Your task to perform on an android device: Open Chrome and go to the settings page Image 0: 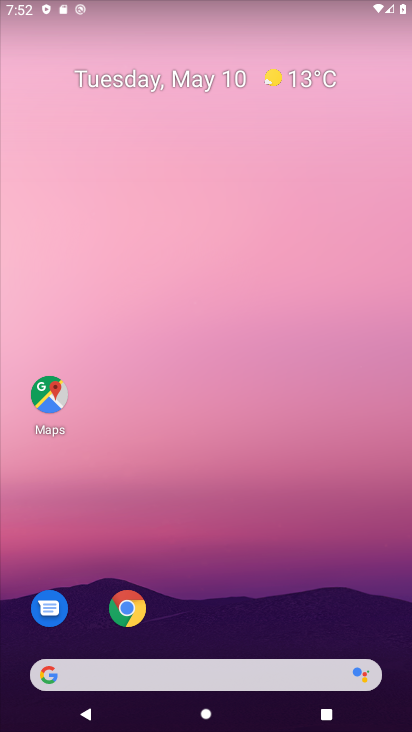
Step 0: press home button
Your task to perform on an android device: Open Chrome and go to the settings page Image 1: 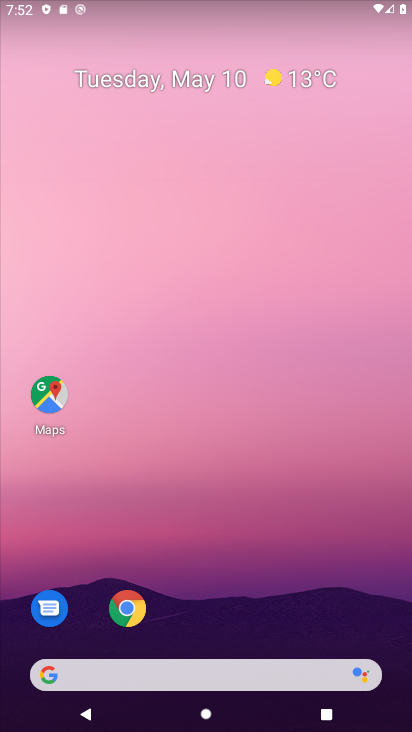
Step 1: drag from (162, 674) to (249, 345)
Your task to perform on an android device: Open Chrome and go to the settings page Image 2: 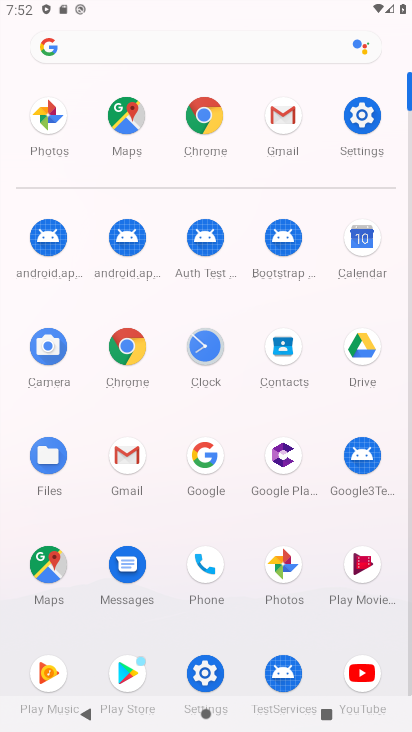
Step 2: click (208, 119)
Your task to perform on an android device: Open Chrome and go to the settings page Image 3: 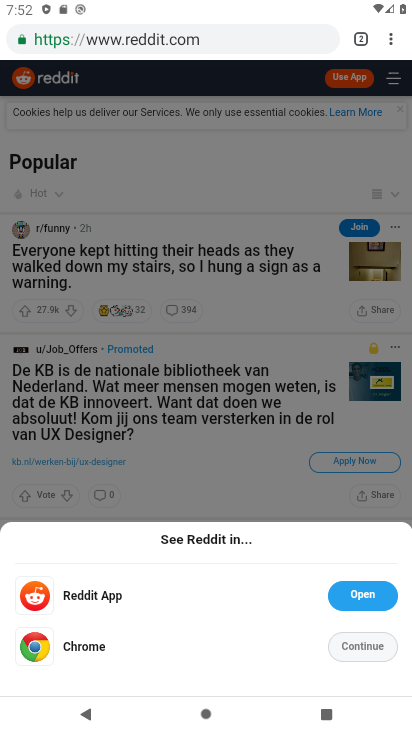
Step 3: click (393, 44)
Your task to perform on an android device: Open Chrome and go to the settings page Image 4: 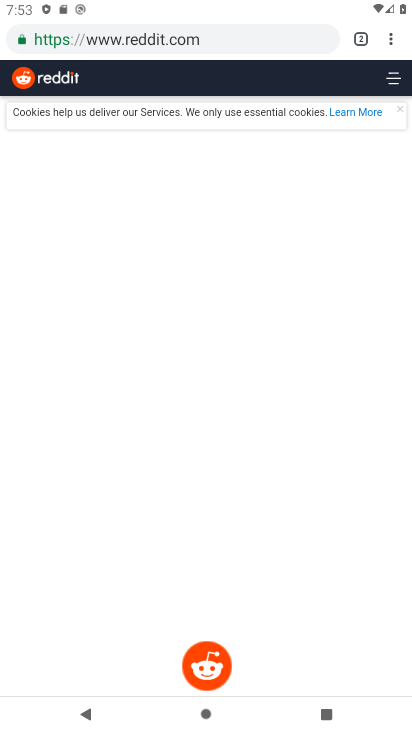
Step 4: task complete